Your task to perform on an android device: refresh tabs in the chrome app Image 0: 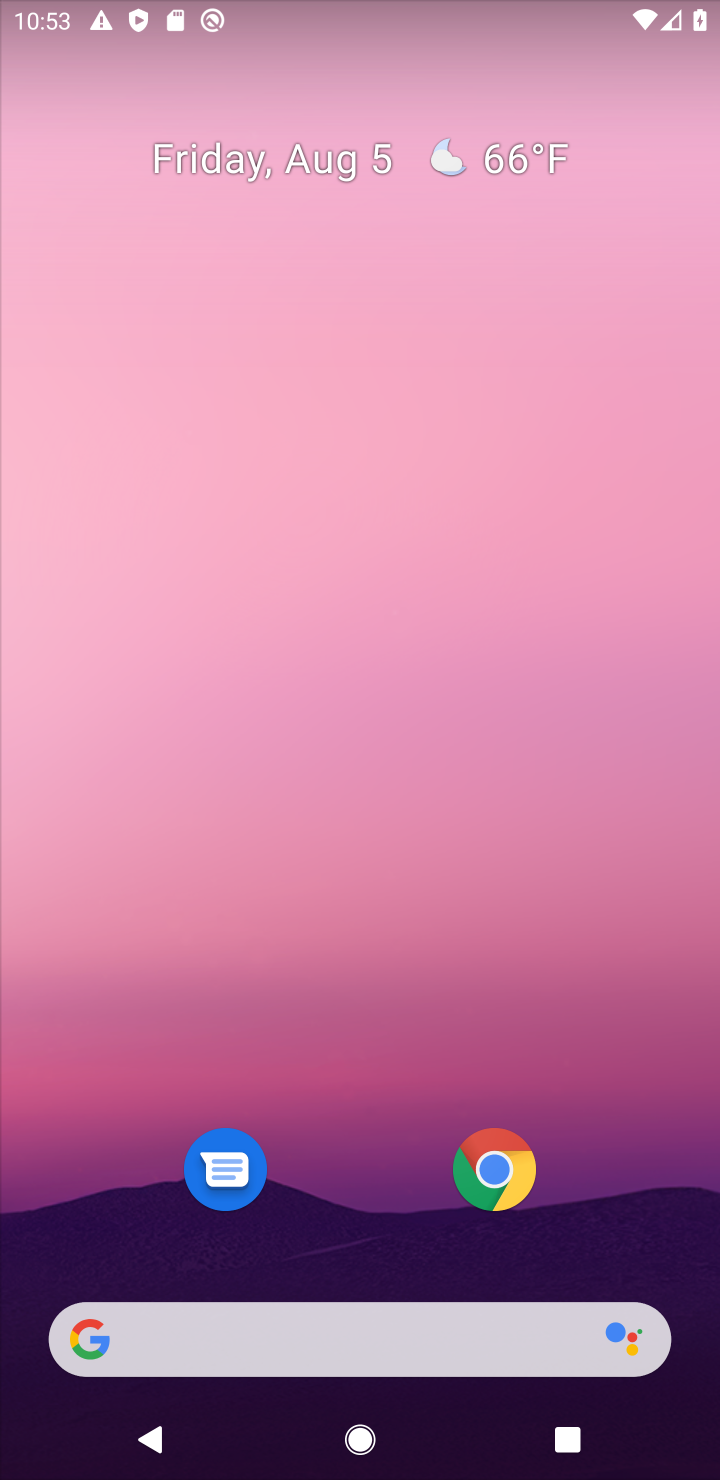
Step 0: click (495, 1167)
Your task to perform on an android device: refresh tabs in the chrome app Image 1: 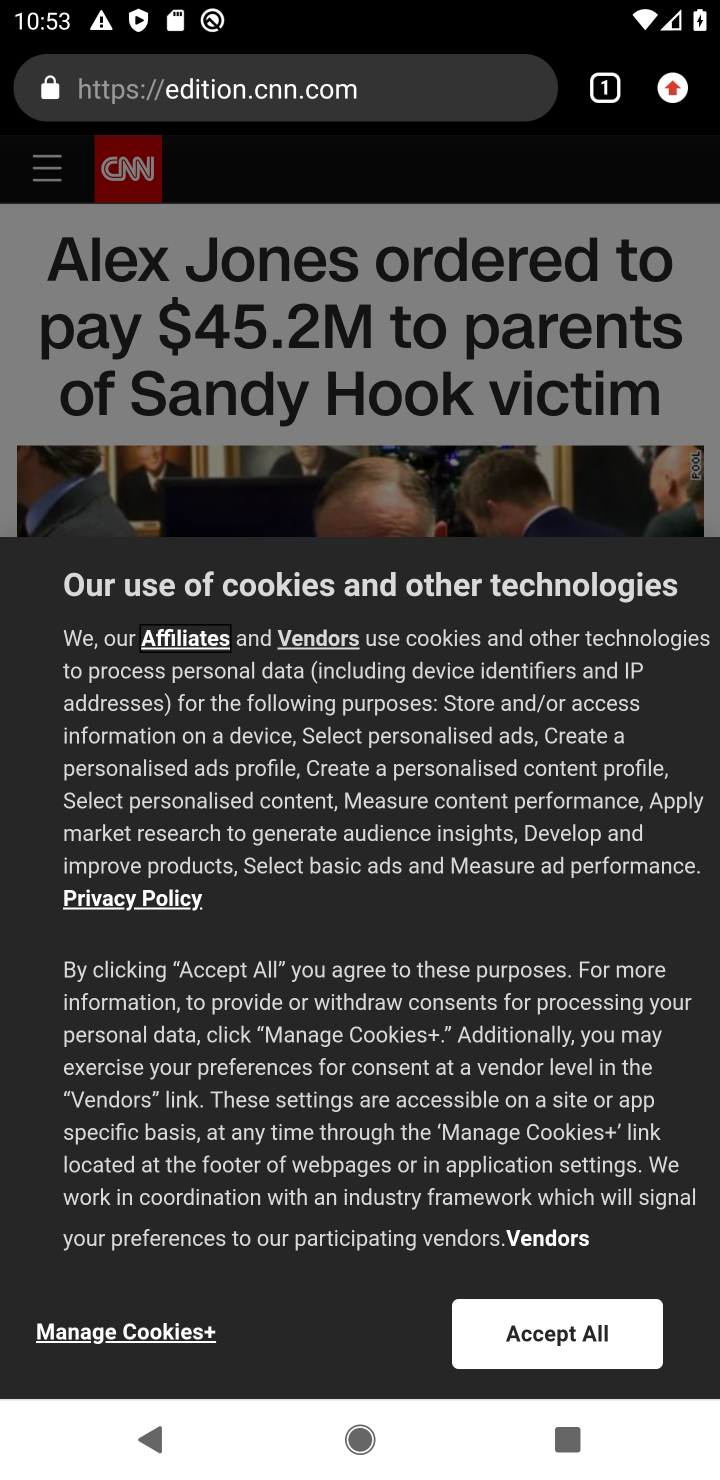
Step 1: click (481, 1181)
Your task to perform on an android device: refresh tabs in the chrome app Image 2: 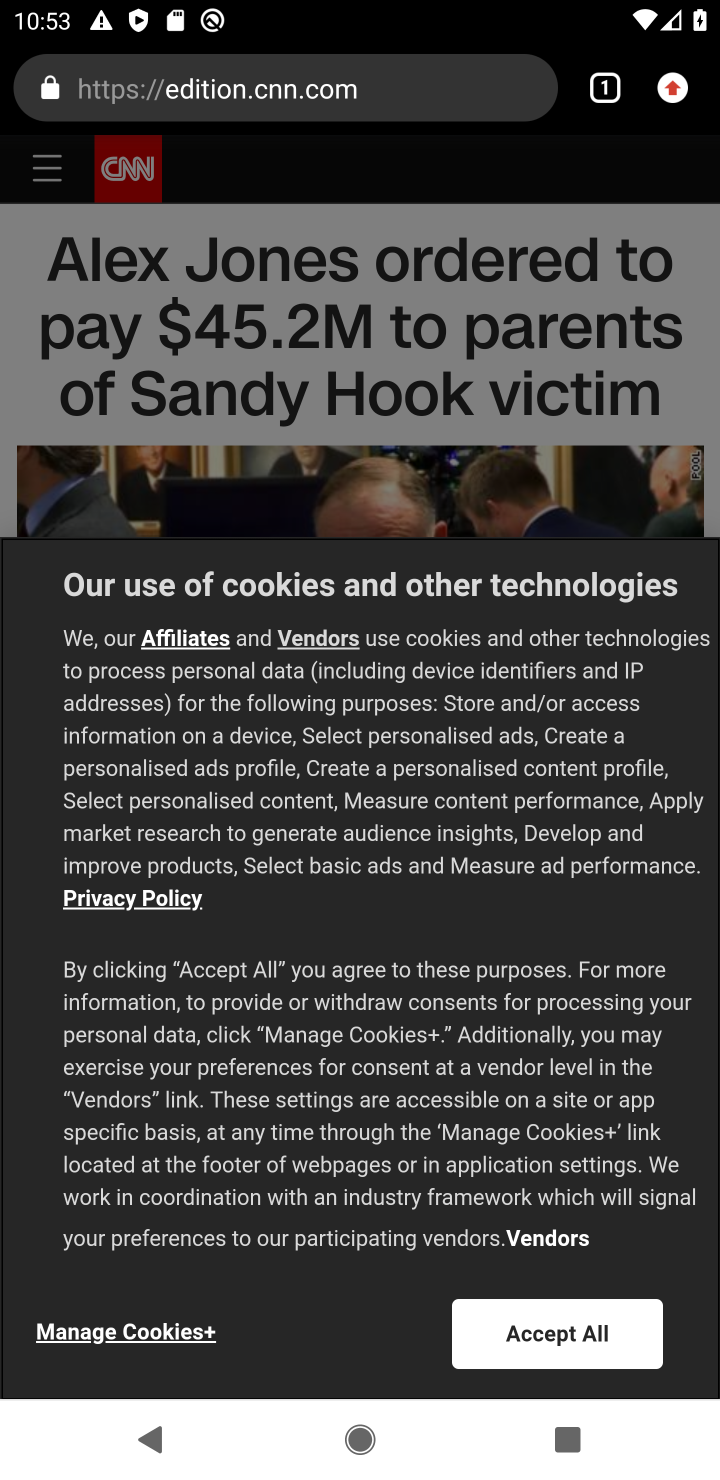
Step 2: click (664, 79)
Your task to perform on an android device: refresh tabs in the chrome app Image 3: 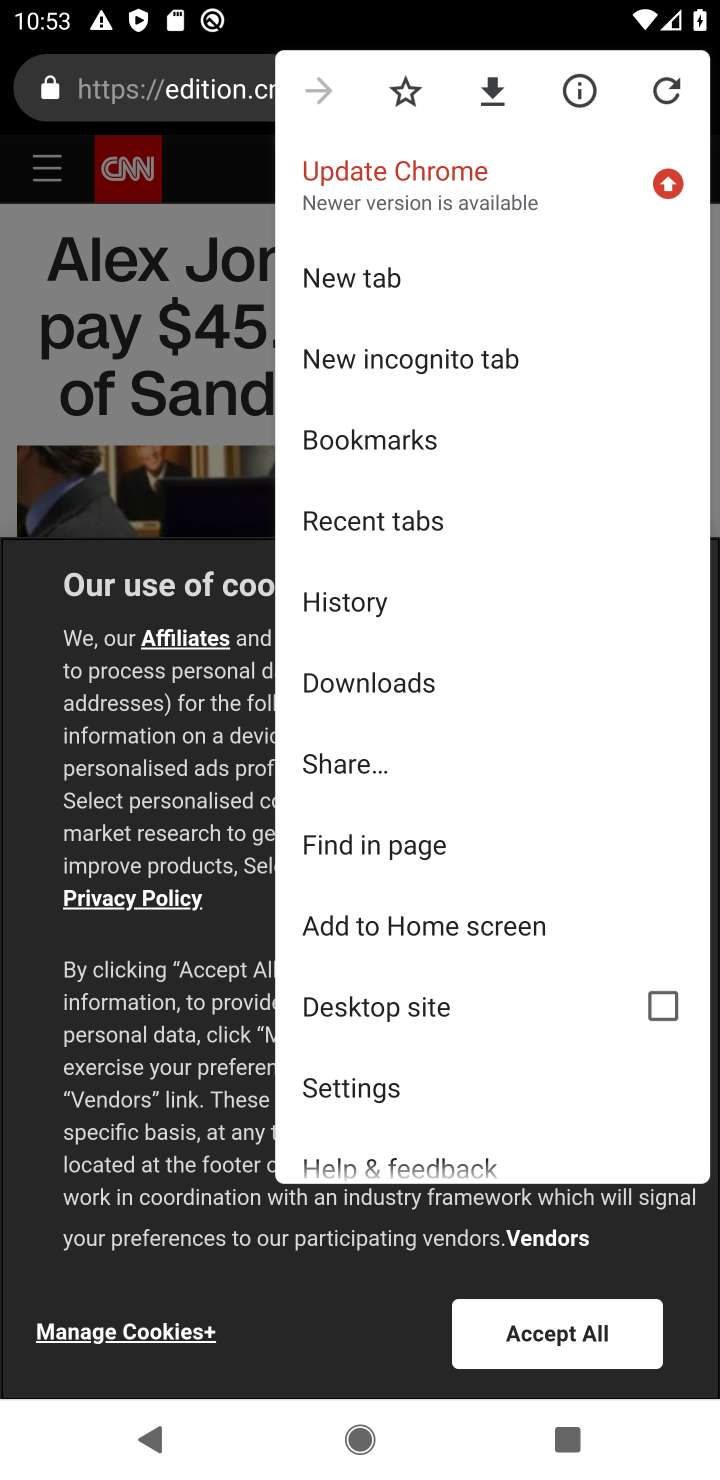
Step 3: click (654, 81)
Your task to perform on an android device: refresh tabs in the chrome app Image 4: 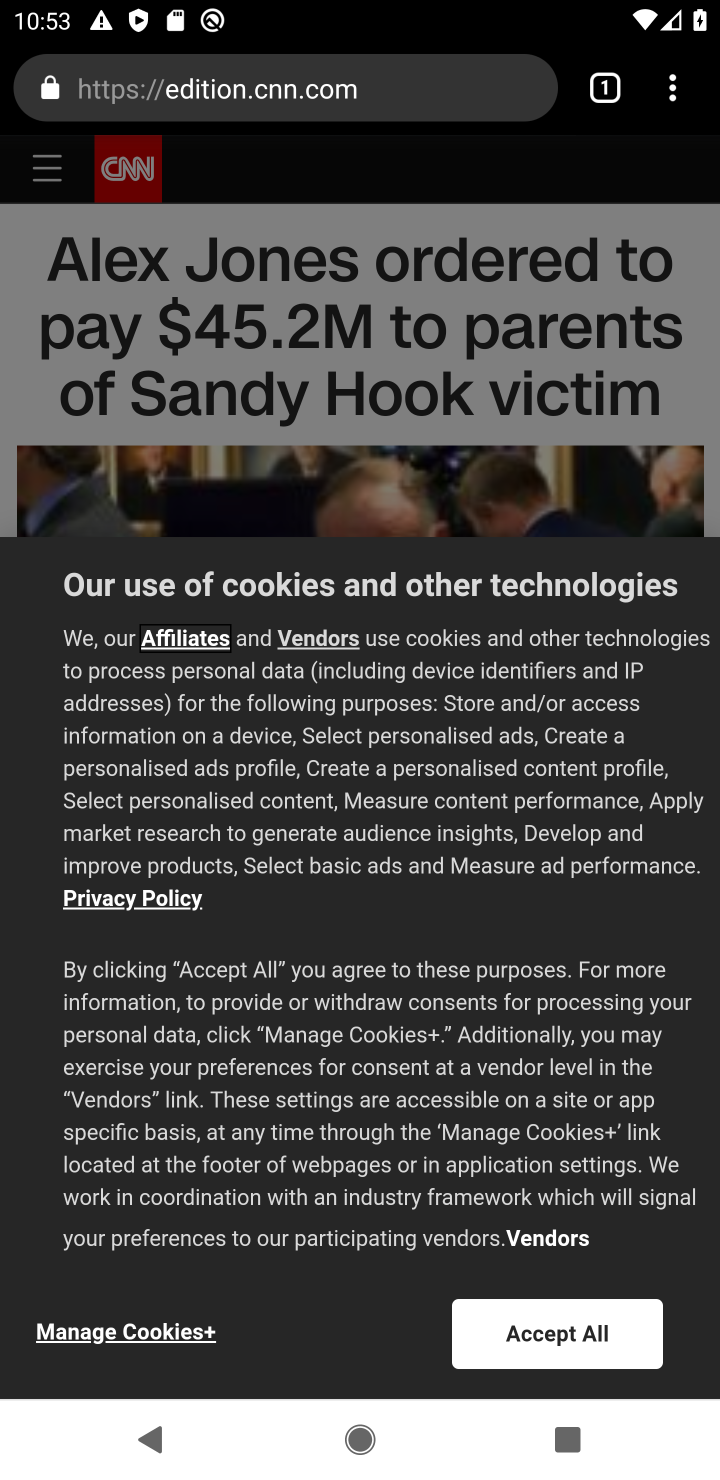
Step 4: task complete